Your task to perform on an android device: Open location settings Image 0: 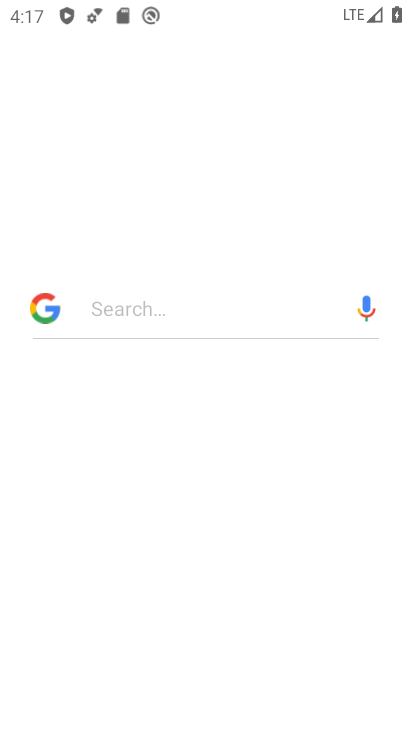
Step 0: drag from (321, 605) to (311, 570)
Your task to perform on an android device: Open location settings Image 1: 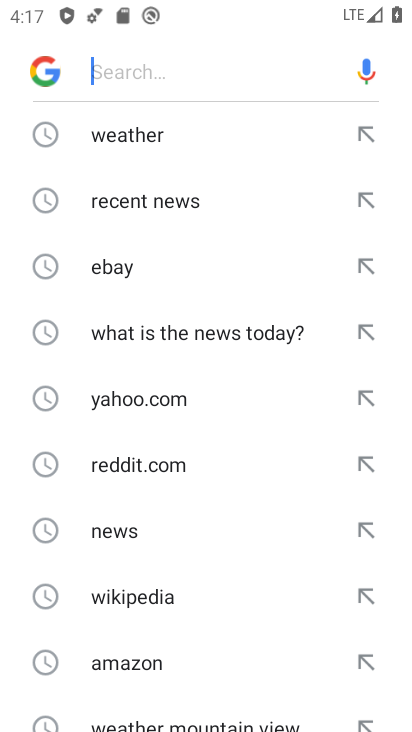
Step 1: press home button
Your task to perform on an android device: Open location settings Image 2: 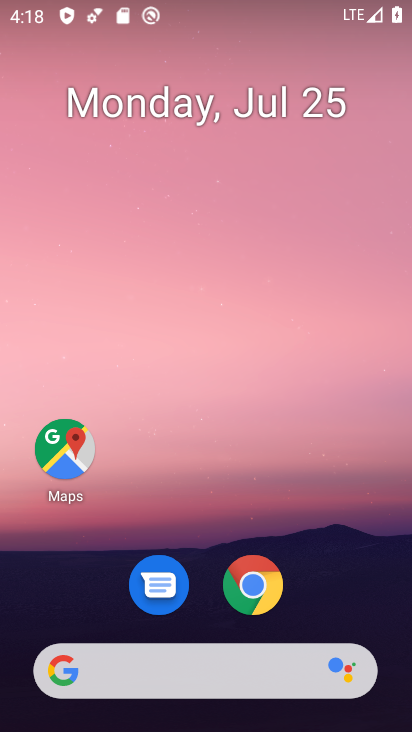
Step 2: drag from (312, 596) to (342, 4)
Your task to perform on an android device: Open location settings Image 3: 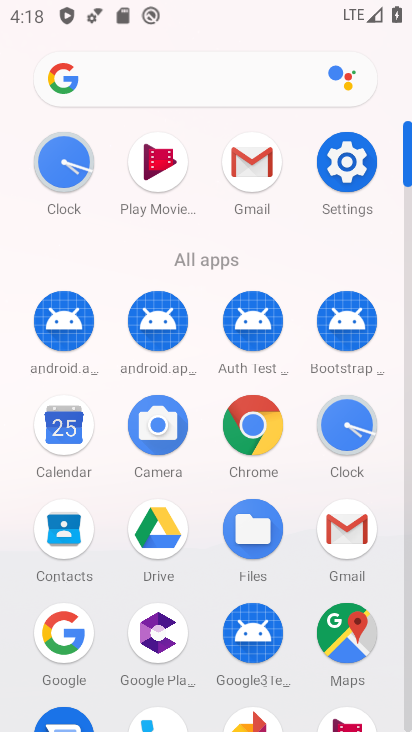
Step 3: click (362, 154)
Your task to perform on an android device: Open location settings Image 4: 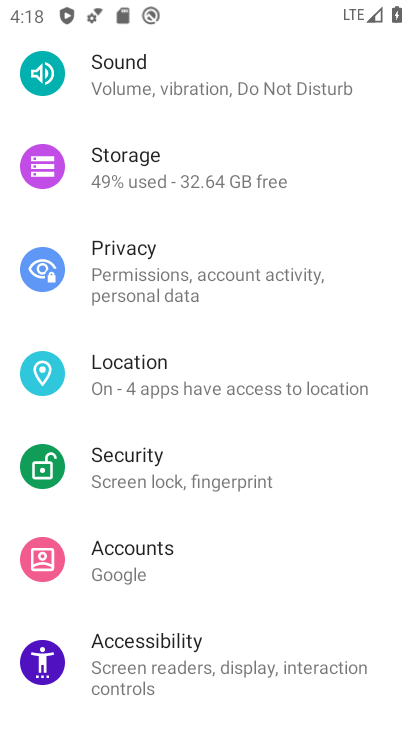
Step 4: click (207, 373)
Your task to perform on an android device: Open location settings Image 5: 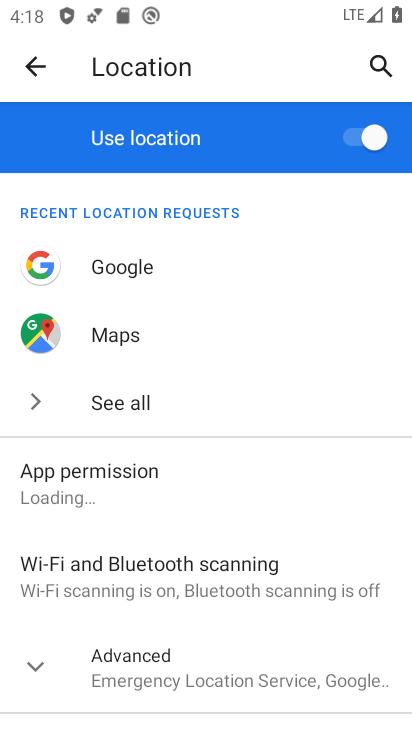
Step 5: task complete